Your task to perform on an android device: Open Wikipedia Image 0: 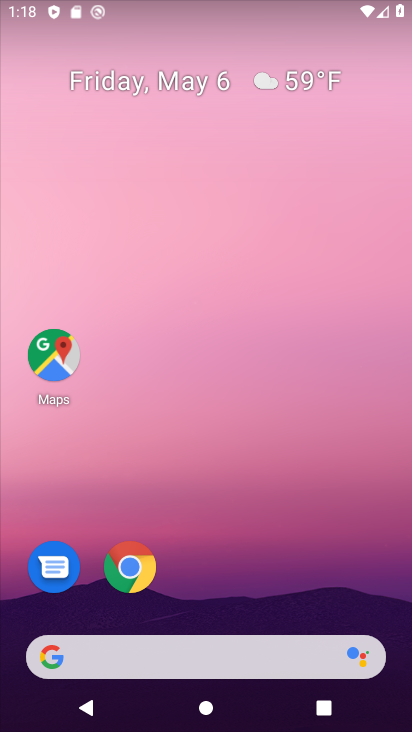
Step 0: click (123, 578)
Your task to perform on an android device: Open Wikipedia Image 1: 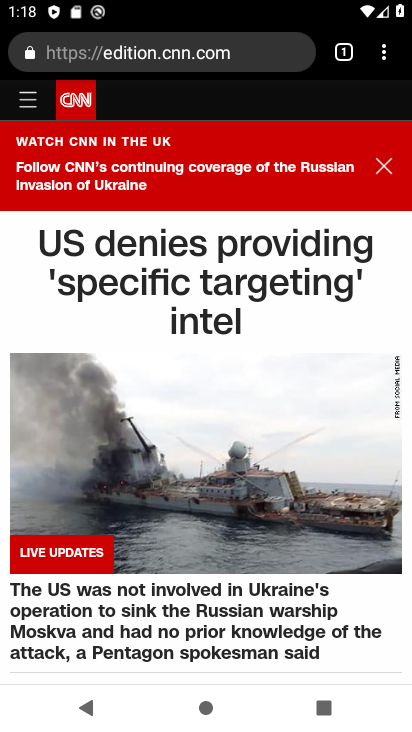
Step 1: click (356, 56)
Your task to perform on an android device: Open Wikipedia Image 2: 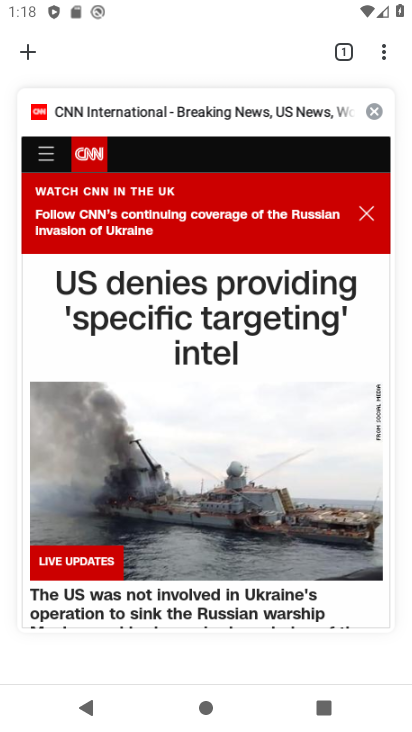
Step 2: click (372, 112)
Your task to perform on an android device: Open Wikipedia Image 3: 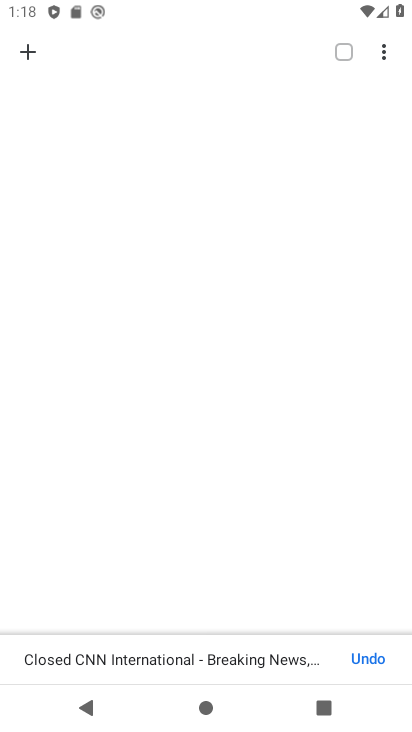
Step 3: click (27, 48)
Your task to perform on an android device: Open Wikipedia Image 4: 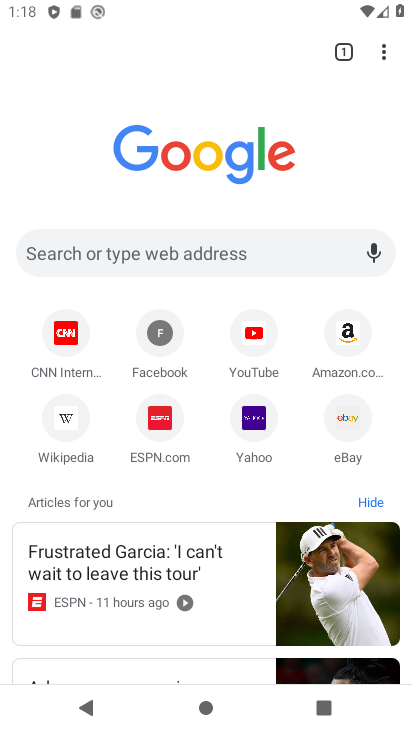
Step 4: click (62, 410)
Your task to perform on an android device: Open Wikipedia Image 5: 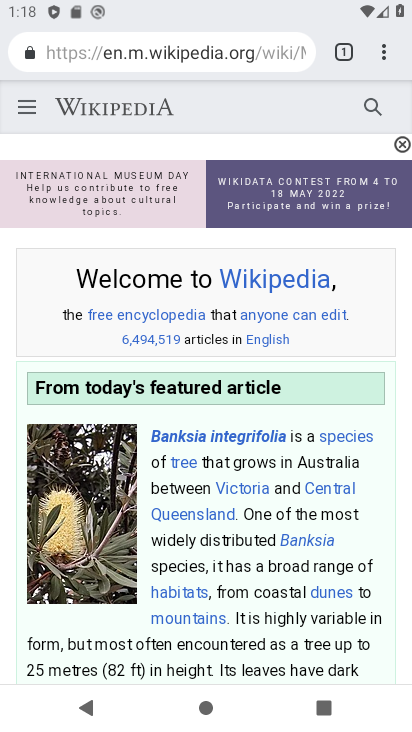
Step 5: task complete